Your task to perform on an android device: Open the calendar and show me this week's events Image 0: 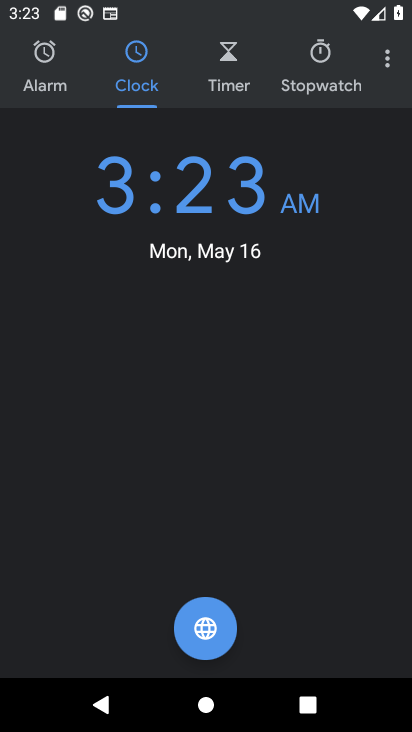
Step 0: press home button
Your task to perform on an android device: Open the calendar and show me this week's events Image 1: 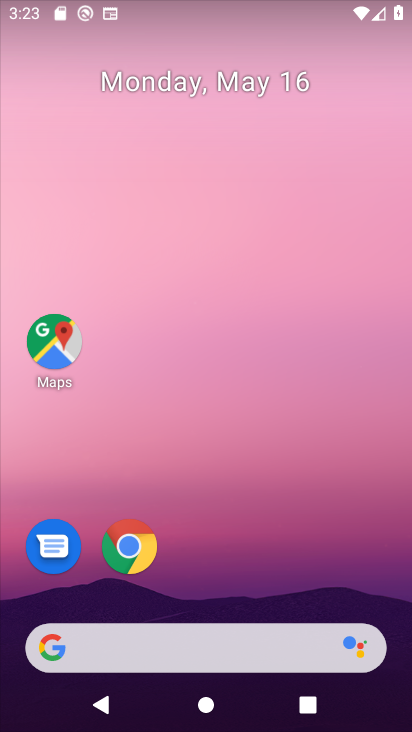
Step 1: drag from (347, 573) to (371, 147)
Your task to perform on an android device: Open the calendar and show me this week's events Image 2: 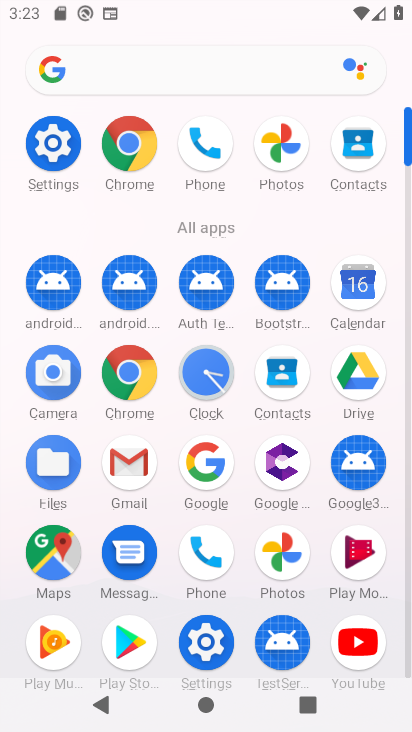
Step 2: click (361, 300)
Your task to perform on an android device: Open the calendar and show me this week's events Image 3: 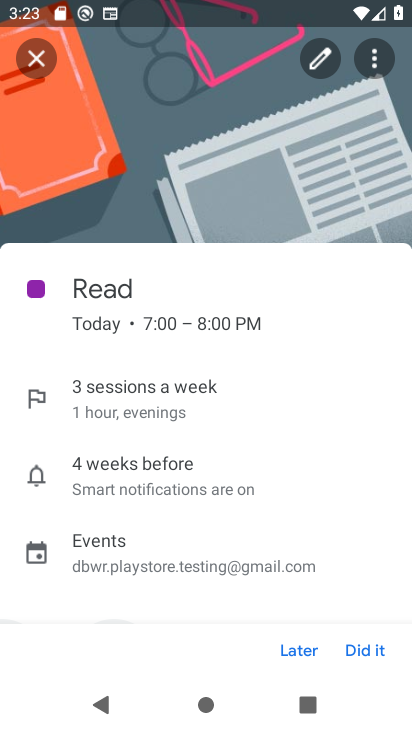
Step 3: click (32, 68)
Your task to perform on an android device: Open the calendar and show me this week's events Image 4: 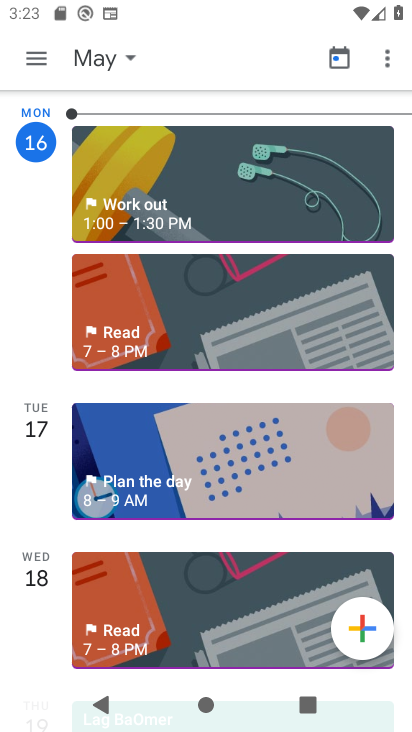
Step 4: task complete